Your task to perform on an android device: manage bookmarks in the chrome app Image 0: 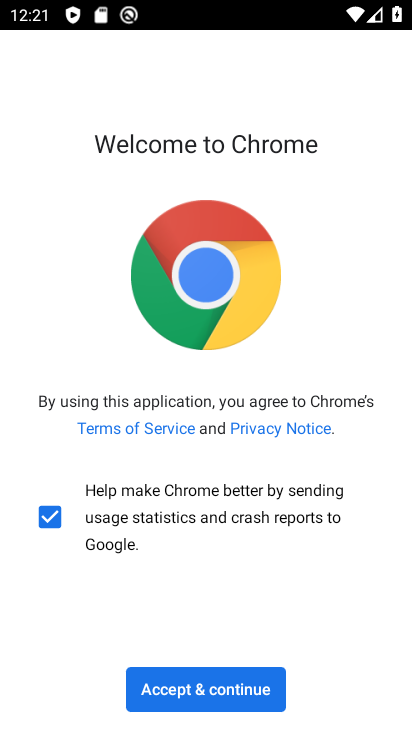
Step 0: click (196, 676)
Your task to perform on an android device: manage bookmarks in the chrome app Image 1: 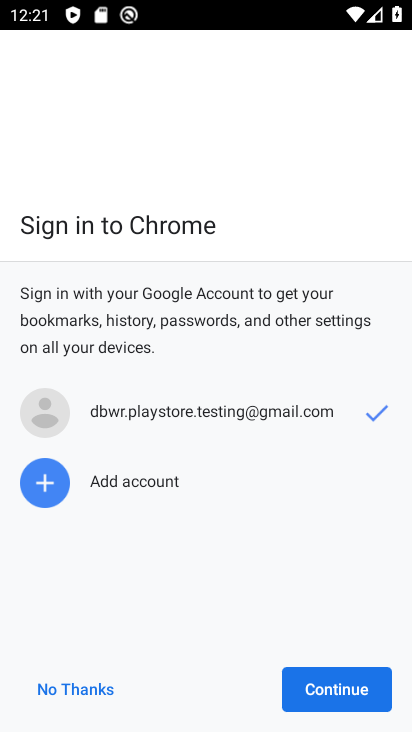
Step 1: click (337, 692)
Your task to perform on an android device: manage bookmarks in the chrome app Image 2: 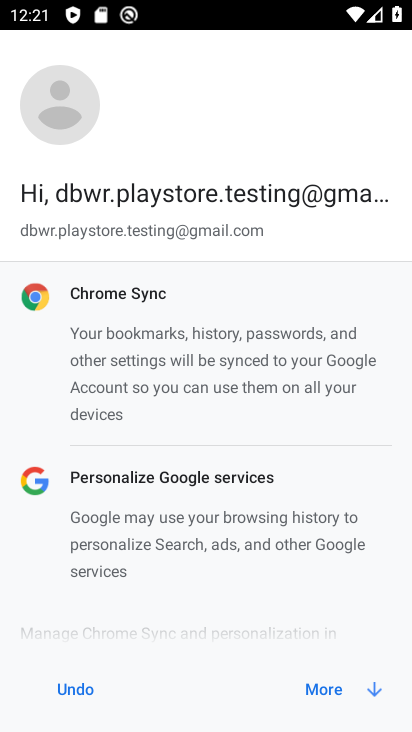
Step 2: click (365, 689)
Your task to perform on an android device: manage bookmarks in the chrome app Image 3: 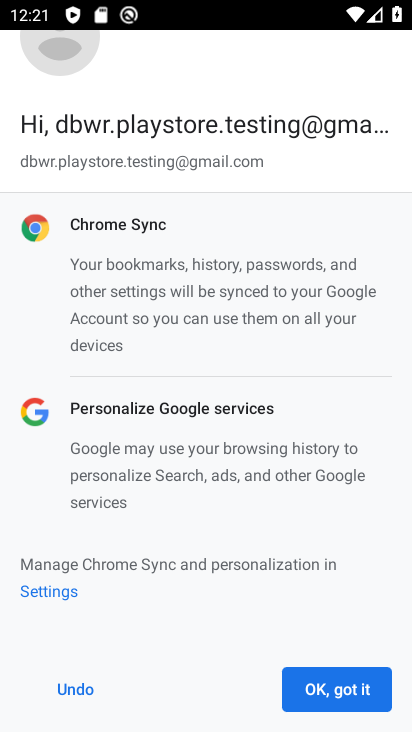
Step 3: click (342, 683)
Your task to perform on an android device: manage bookmarks in the chrome app Image 4: 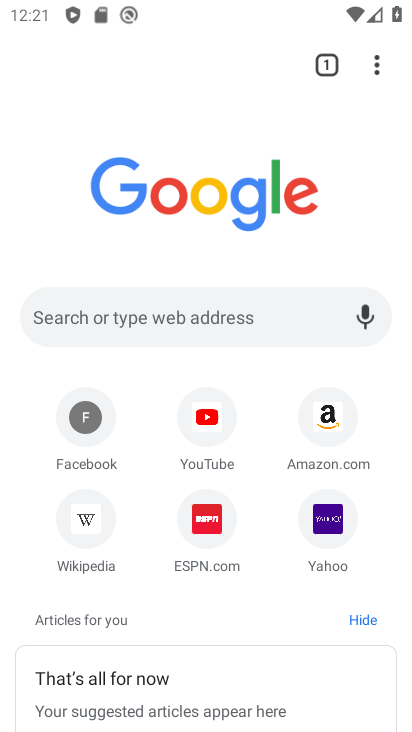
Step 4: click (374, 59)
Your task to perform on an android device: manage bookmarks in the chrome app Image 5: 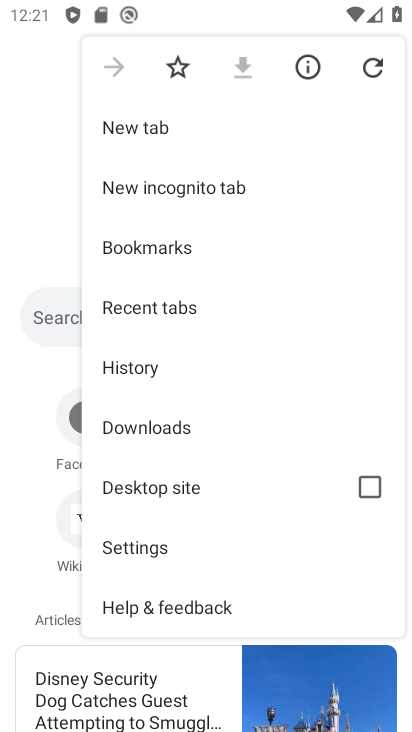
Step 5: click (170, 241)
Your task to perform on an android device: manage bookmarks in the chrome app Image 6: 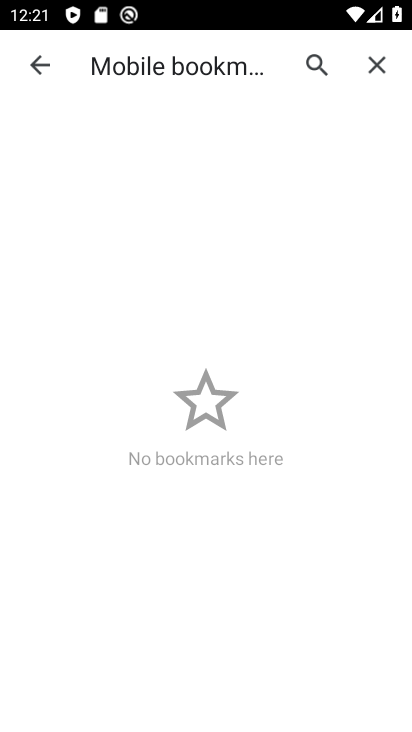
Step 6: task complete